Your task to perform on an android device: create a new album in the google photos Image 0: 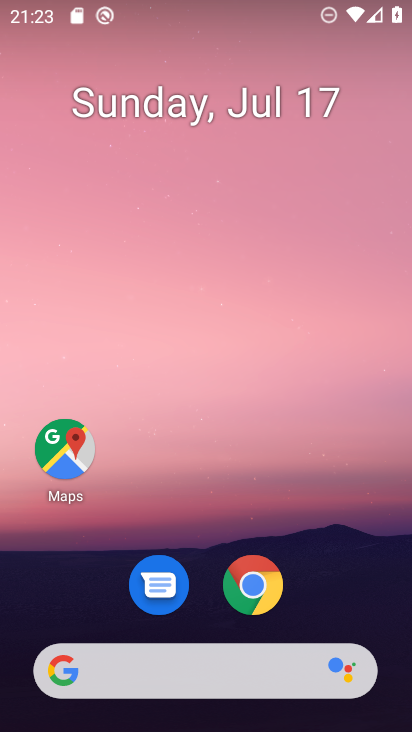
Step 0: press home button
Your task to perform on an android device: create a new album in the google photos Image 1: 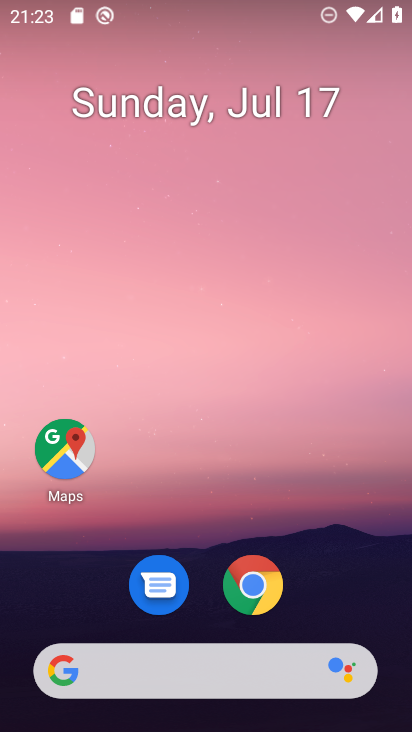
Step 1: drag from (226, 659) to (275, 262)
Your task to perform on an android device: create a new album in the google photos Image 2: 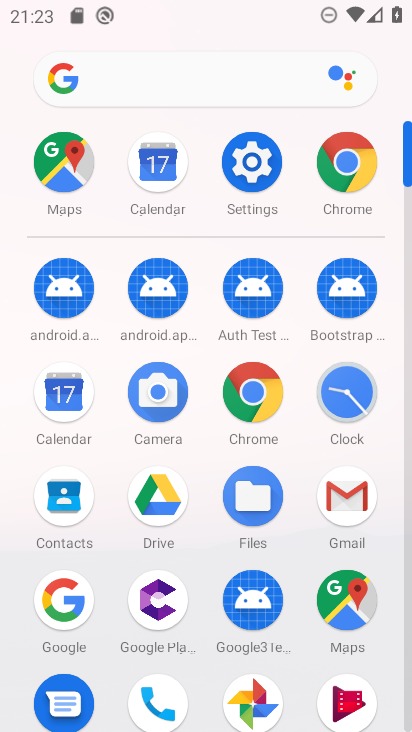
Step 2: drag from (209, 668) to (309, 278)
Your task to perform on an android device: create a new album in the google photos Image 3: 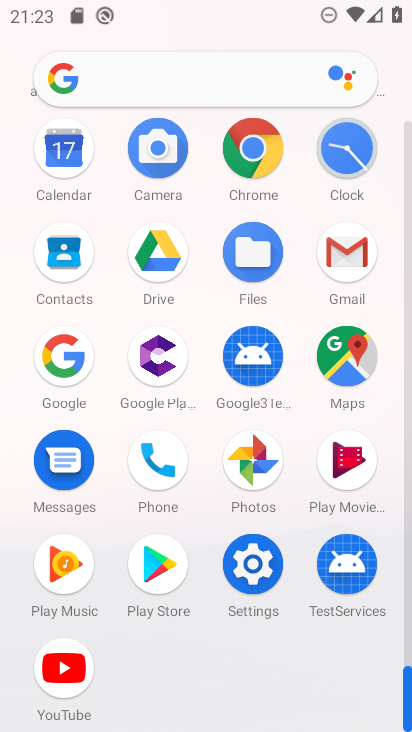
Step 3: click (246, 554)
Your task to perform on an android device: create a new album in the google photos Image 4: 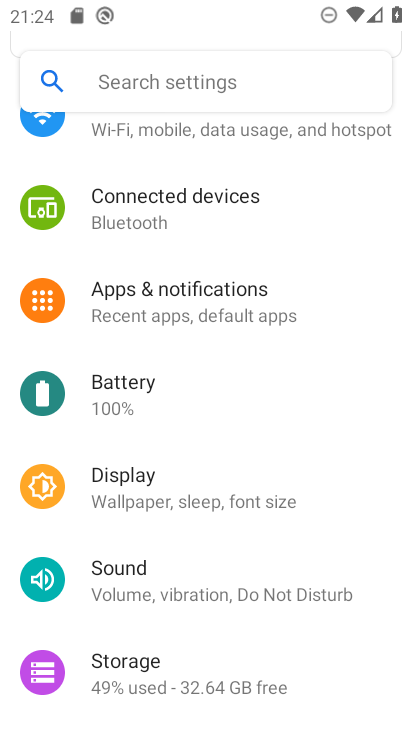
Step 4: press home button
Your task to perform on an android device: create a new album in the google photos Image 5: 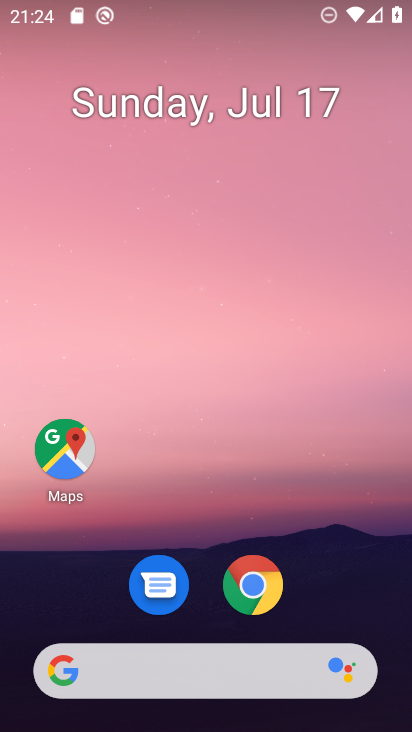
Step 5: drag from (198, 668) to (325, 120)
Your task to perform on an android device: create a new album in the google photos Image 6: 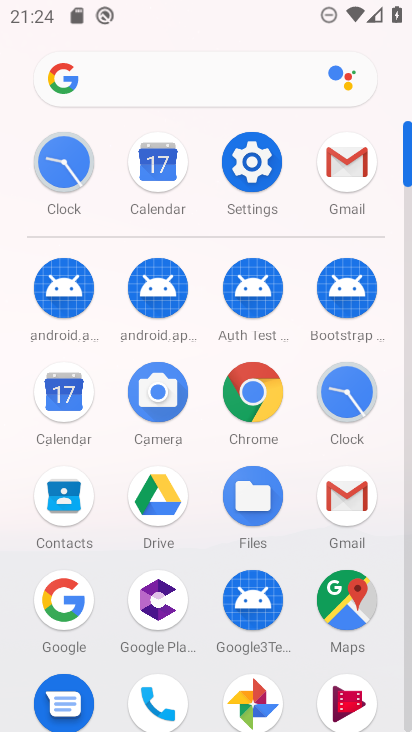
Step 6: click (243, 702)
Your task to perform on an android device: create a new album in the google photos Image 7: 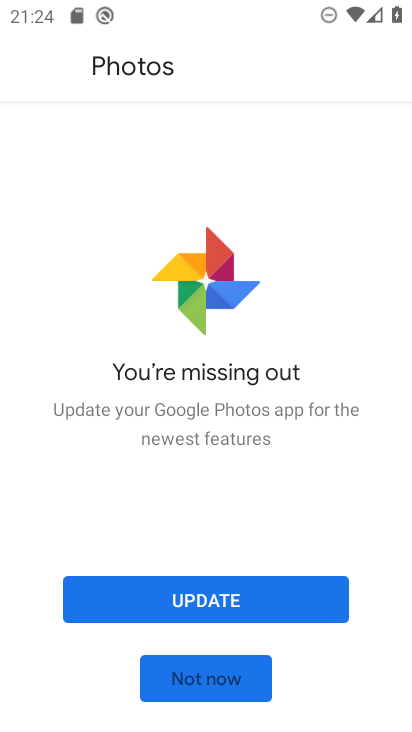
Step 7: click (201, 682)
Your task to perform on an android device: create a new album in the google photos Image 8: 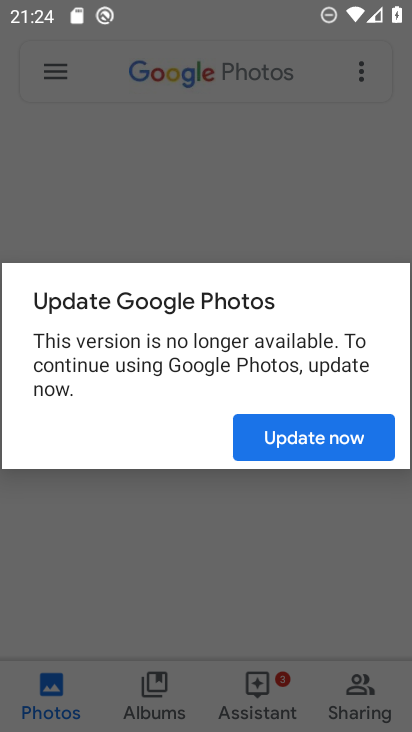
Step 8: click (316, 434)
Your task to perform on an android device: create a new album in the google photos Image 9: 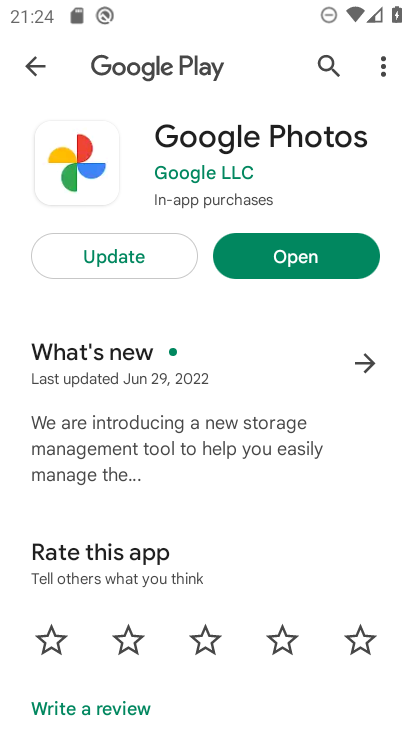
Step 9: click (292, 256)
Your task to perform on an android device: create a new album in the google photos Image 10: 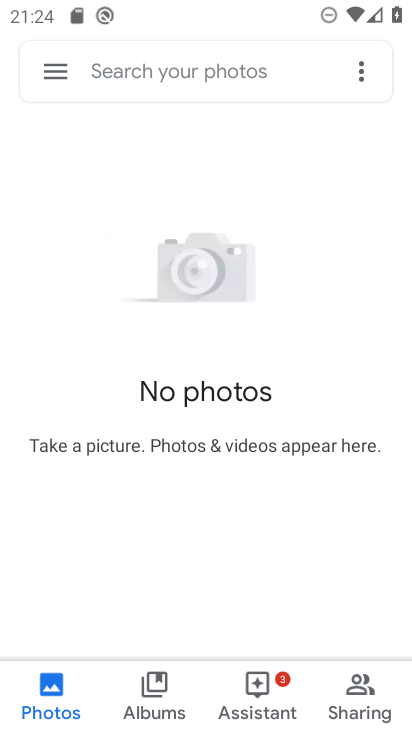
Step 10: click (161, 705)
Your task to perform on an android device: create a new album in the google photos Image 11: 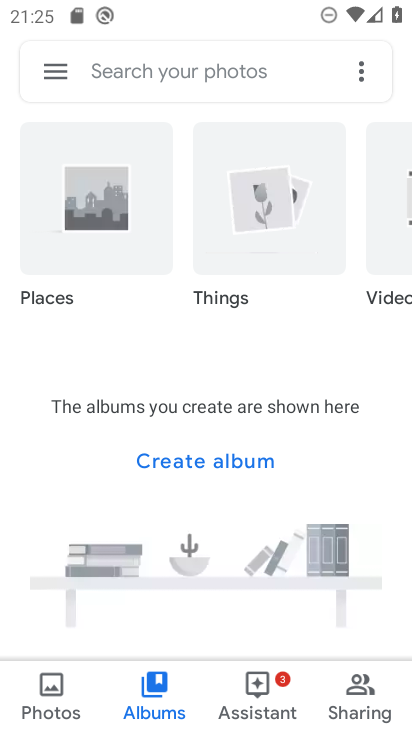
Step 11: task complete